Your task to perform on an android device: Open calendar and show me the first week of next month Image 0: 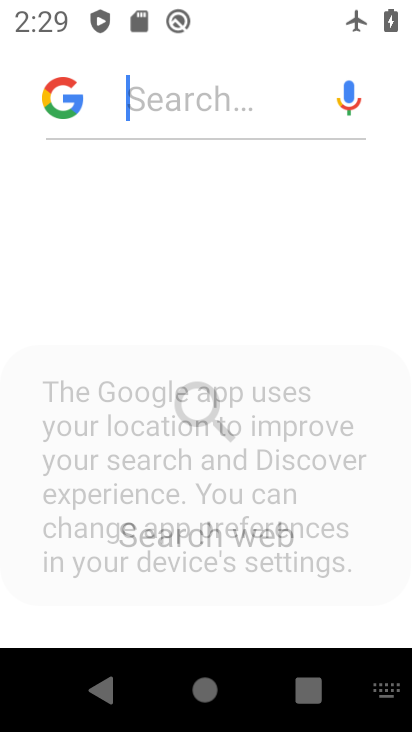
Step 0: press back button
Your task to perform on an android device: Open calendar and show me the first week of next month Image 1: 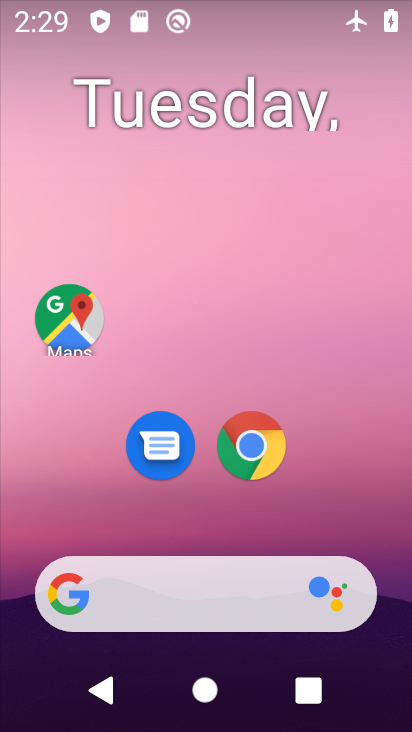
Step 1: drag from (233, 382) to (163, 148)
Your task to perform on an android device: Open calendar and show me the first week of next month Image 2: 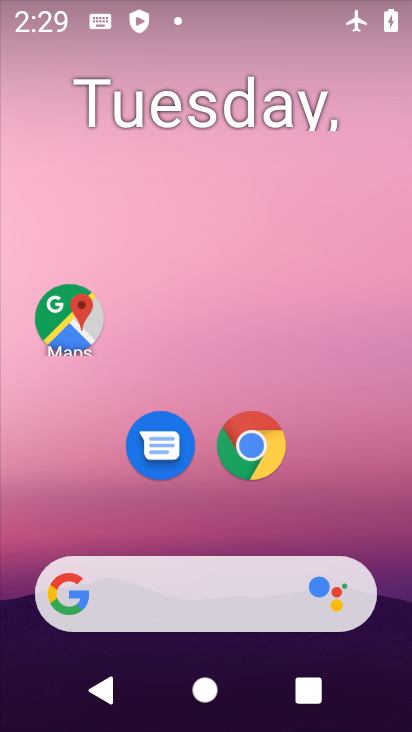
Step 2: drag from (369, 517) to (241, 172)
Your task to perform on an android device: Open calendar and show me the first week of next month Image 3: 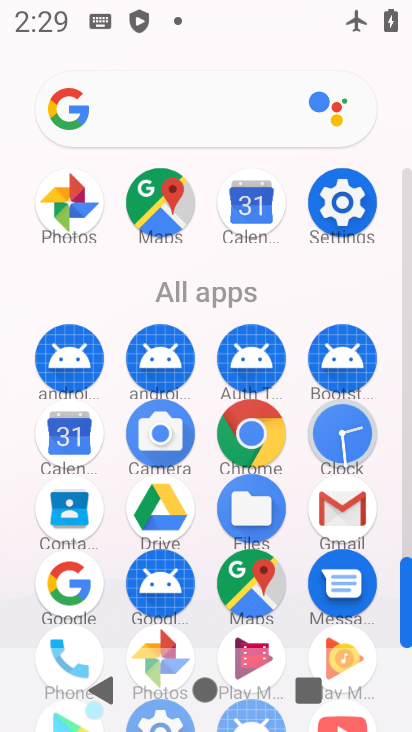
Step 3: click (254, 209)
Your task to perform on an android device: Open calendar and show me the first week of next month Image 4: 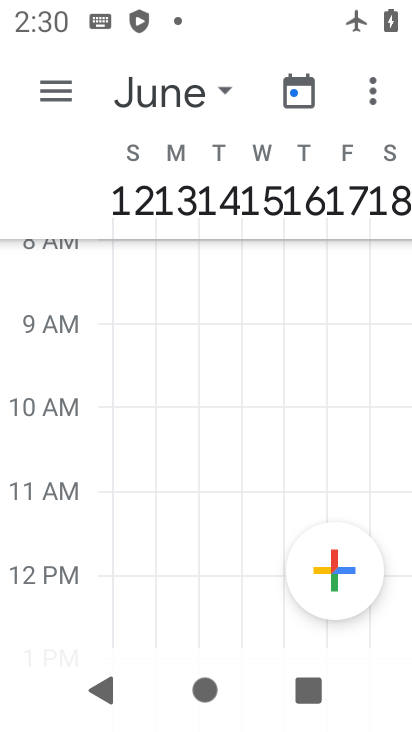
Step 4: click (163, 110)
Your task to perform on an android device: Open calendar and show me the first week of next month Image 5: 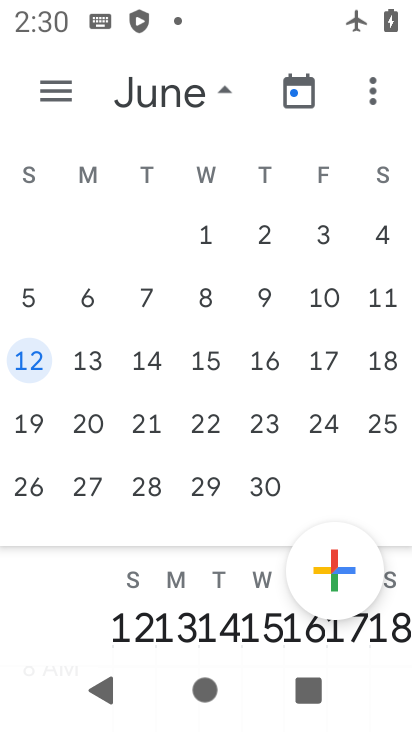
Step 5: click (205, 236)
Your task to perform on an android device: Open calendar and show me the first week of next month Image 6: 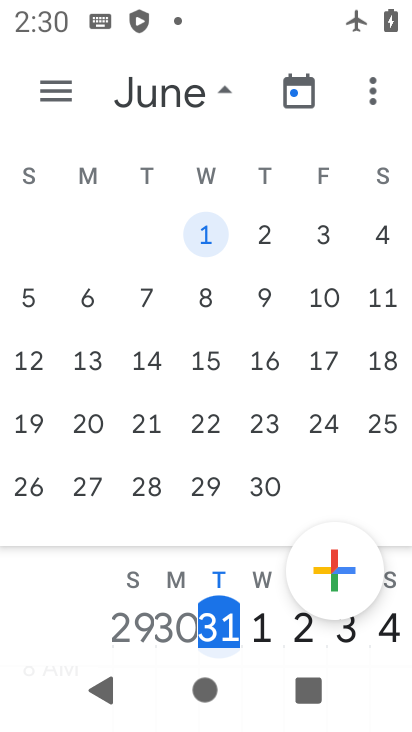
Step 6: click (189, 101)
Your task to perform on an android device: Open calendar and show me the first week of next month Image 7: 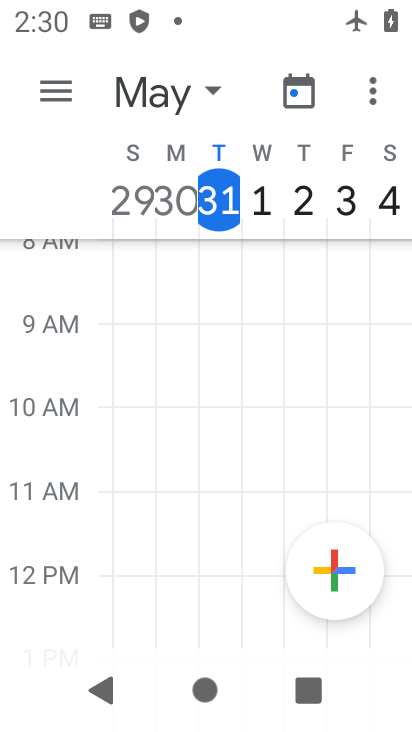
Step 7: task complete